Your task to perform on an android device: toggle show notifications on the lock screen Image 0: 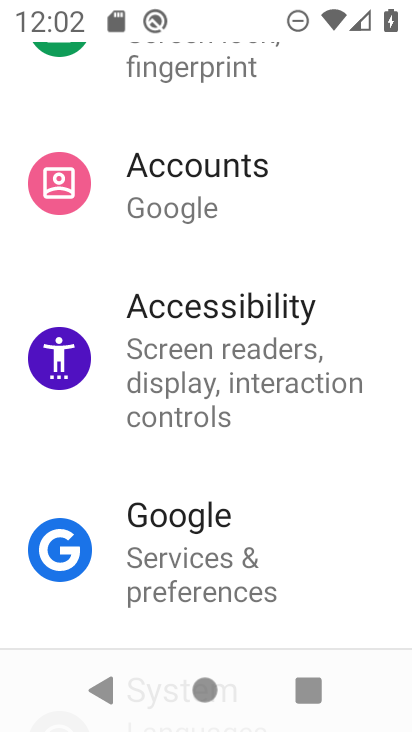
Step 0: press home button
Your task to perform on an android device: toggle show notifications on the lock screen Image 1: 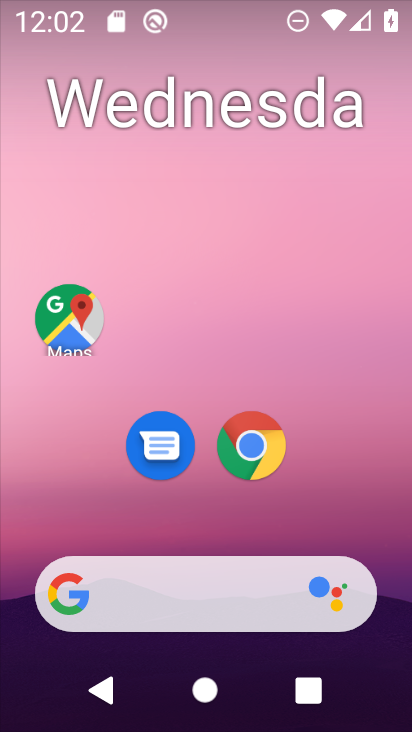
Step 1: drag from (394, 608) to (257, 65)
Your task to perform on an android device: toggle show notifications on the lock screen Image 2: 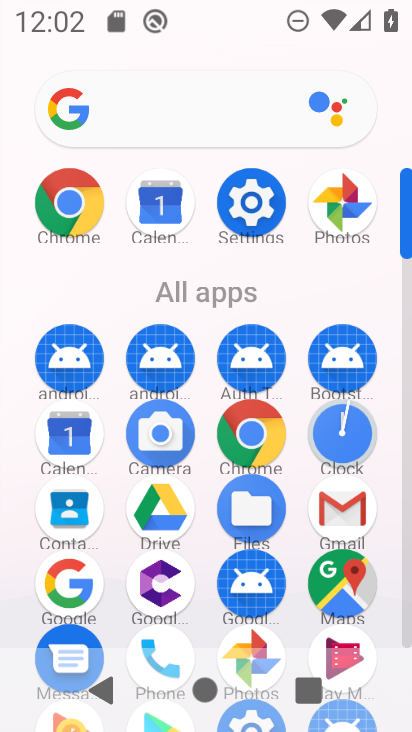
Step 2: click (263, 202)
Your task to perform on an android device: toggle show notifications on the lock screen Image 3: 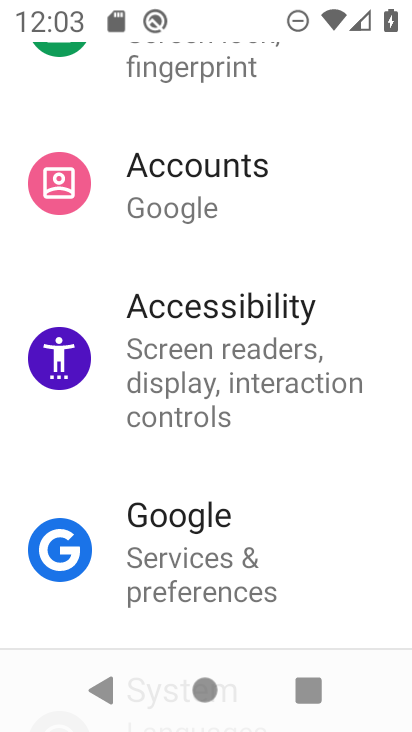
Step 3: drag from (258, 142) to (204, 664)
Your task to perform on an android device: toggle show notifications on the lock screen Image 4: 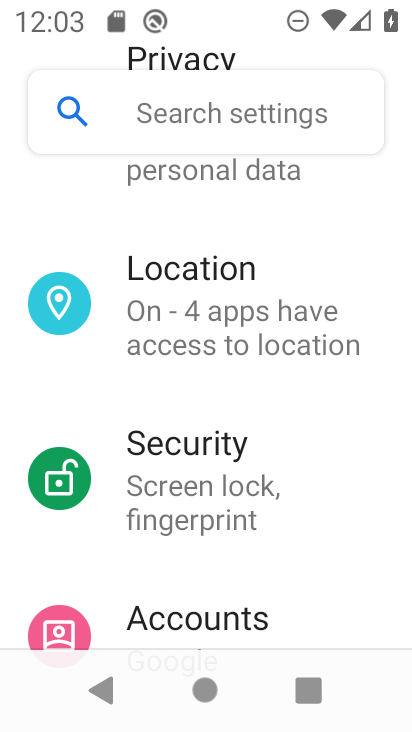
Step 4: drag from (170, 256) to (168, 629)
Your task to perform on an android device: toggle show notifications on the lock screen Image 5: 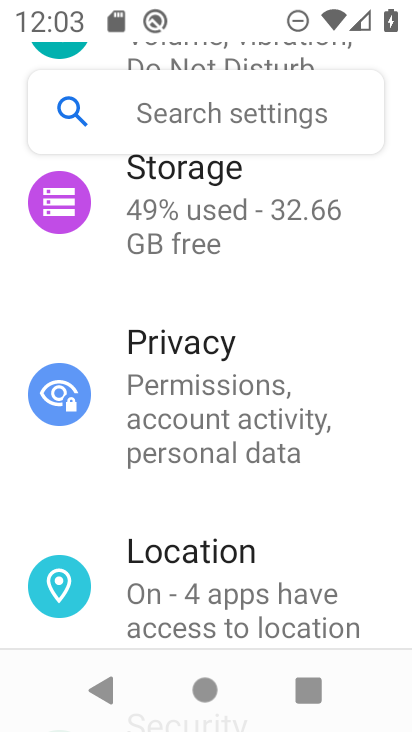
Step 5: drag from (186, 198) to (193, 642)
Your task to perform on an android device: toggle show notifications on the lock screen Image 6: 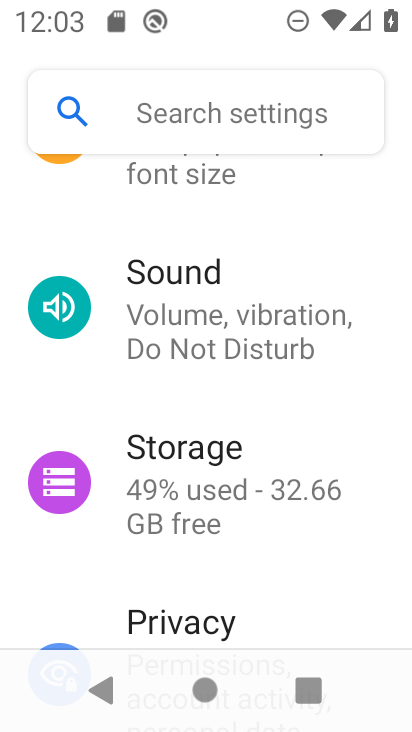
Step 6: drag from (252, 215) to (230, 676)
Your task to perform on an android device: toggle show notifications on the lock screen Image 7: 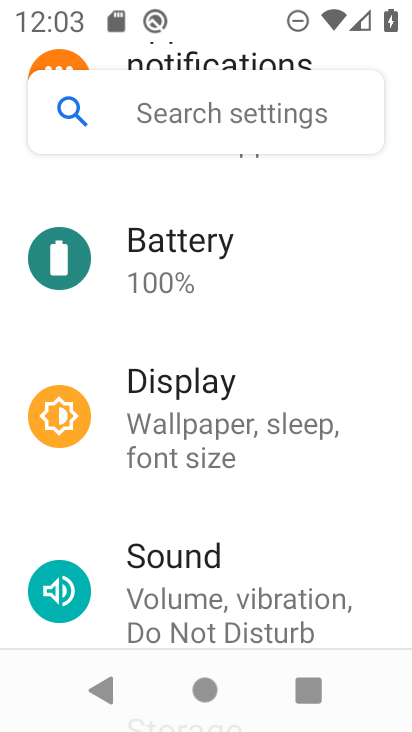
Step 7: drag from (234, 261) to (237, 730)
Your task to perform on an android device: toggle show notifications on the lock screen Image 8: 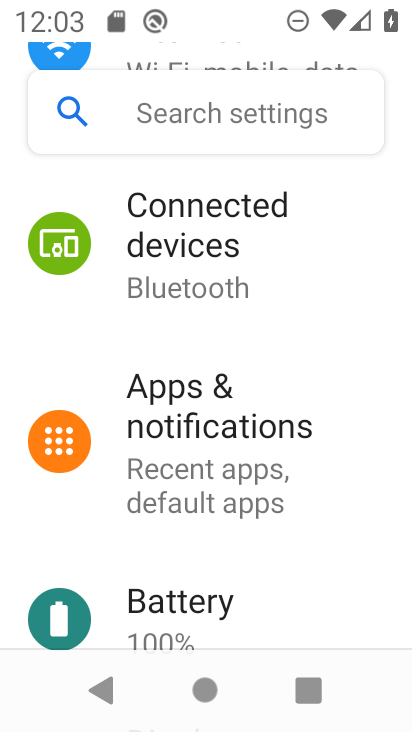
Step 8: click (218, 462)
Your task to perform on an android device: toggle show notifications on the lock screen Image 9: 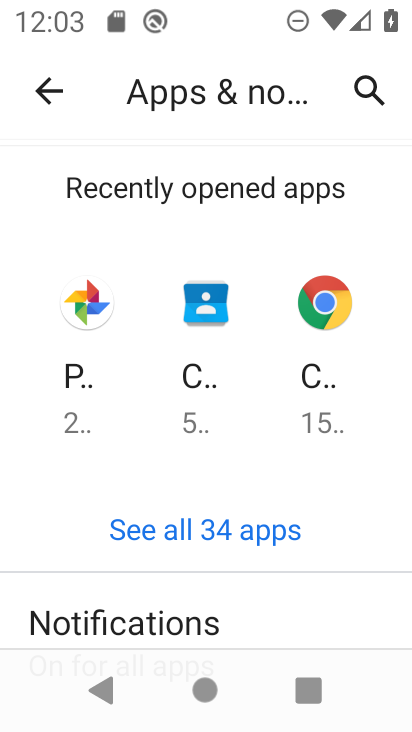
Step 9: click (105, 642)
Your task to perform on an android device: toggle show notifications on the lock screen Image 10: 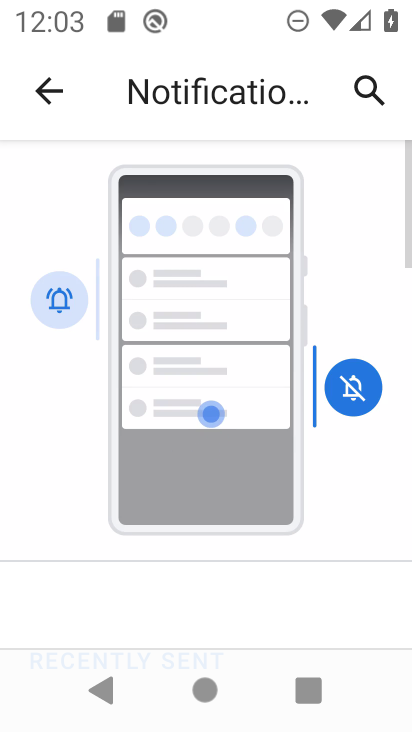
Step 10: drag from (149, 586) to (164, 0)
Your task to perform on an android device: toggle show notifications on the lock screen Image 11: 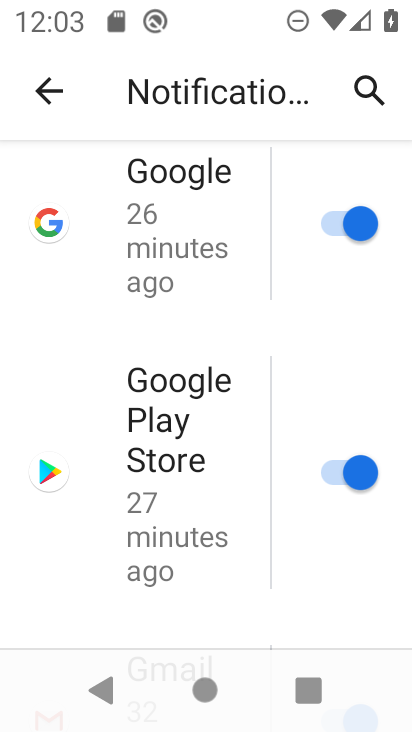
Step 11: drag from (171, 539) to (37, 32)
Your task to perform on an android device: toggle show notifications on the lock screen Image 12: 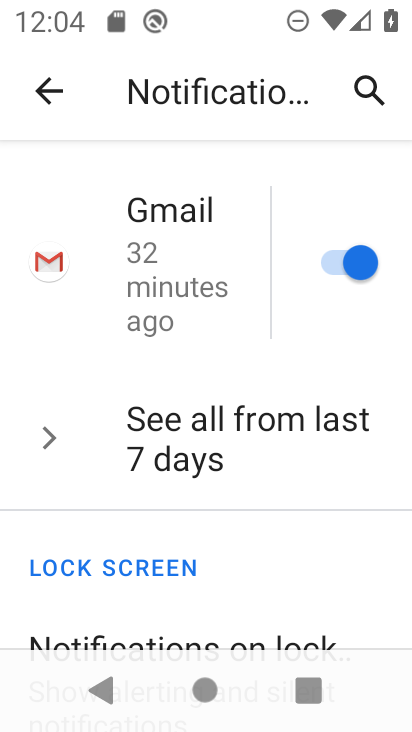
Step 12: click (217, 627)
Your task to perform on an android device: toggle show notifications on the lock screen Image 13: 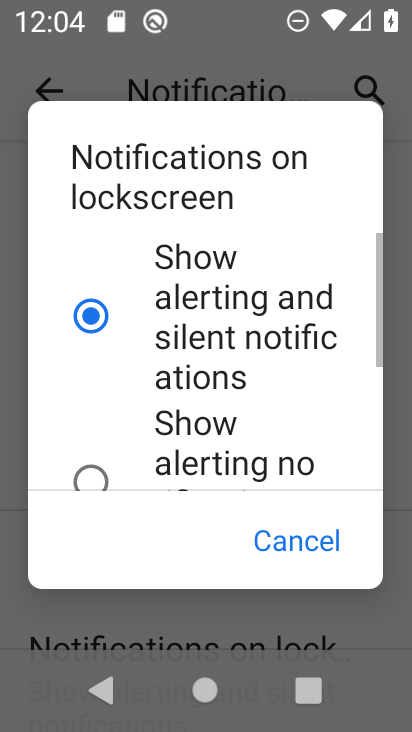
Step 13: drag from (201, 450) to (227, 90)
Your task to perform on an android device: toggle show notifications on the lock screen Image 14: 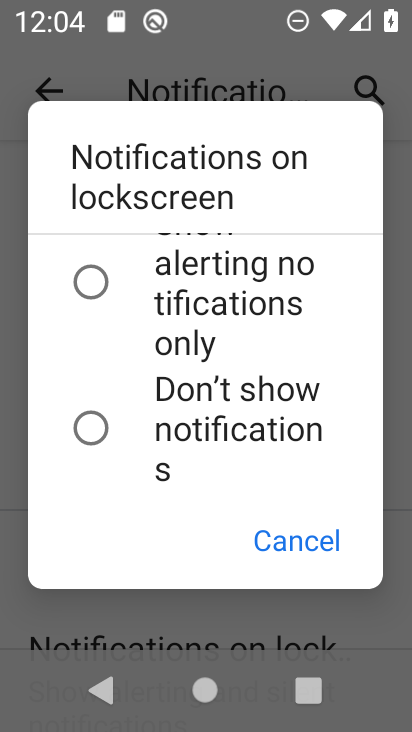
Step 14: click (86, 432)
Your task to perform on an android device: toggle show notifications on the lock screen Image 15: 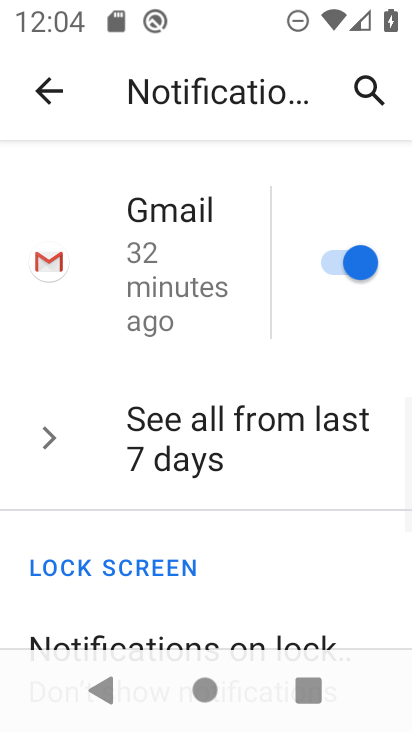
Step 15: task complete